Your task to perform on an android device: Set an alarm for 6am Image 0: 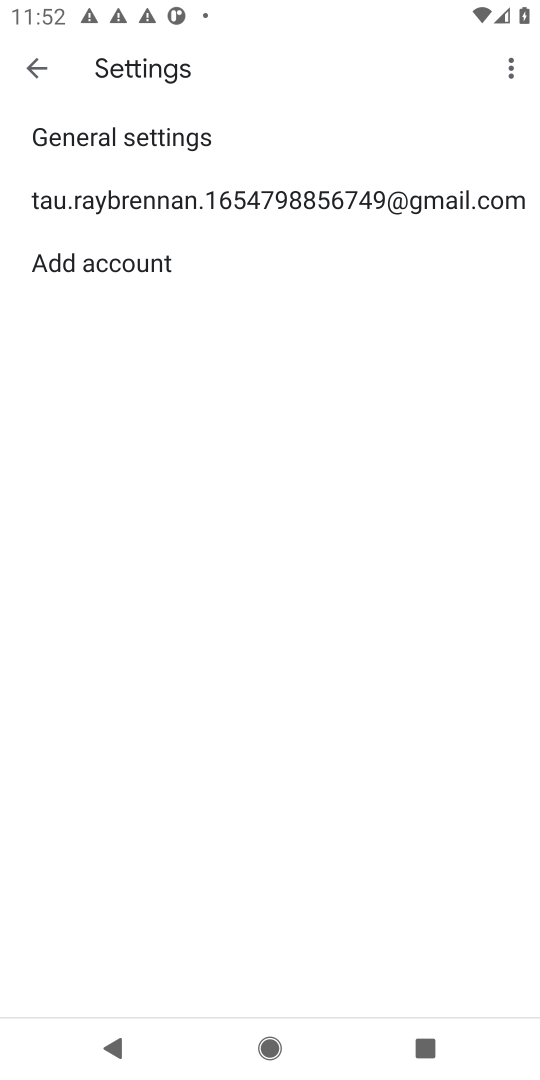
Step 0: press home button
Your task to perform on an android device: Set an alarm for 6am Image 1: 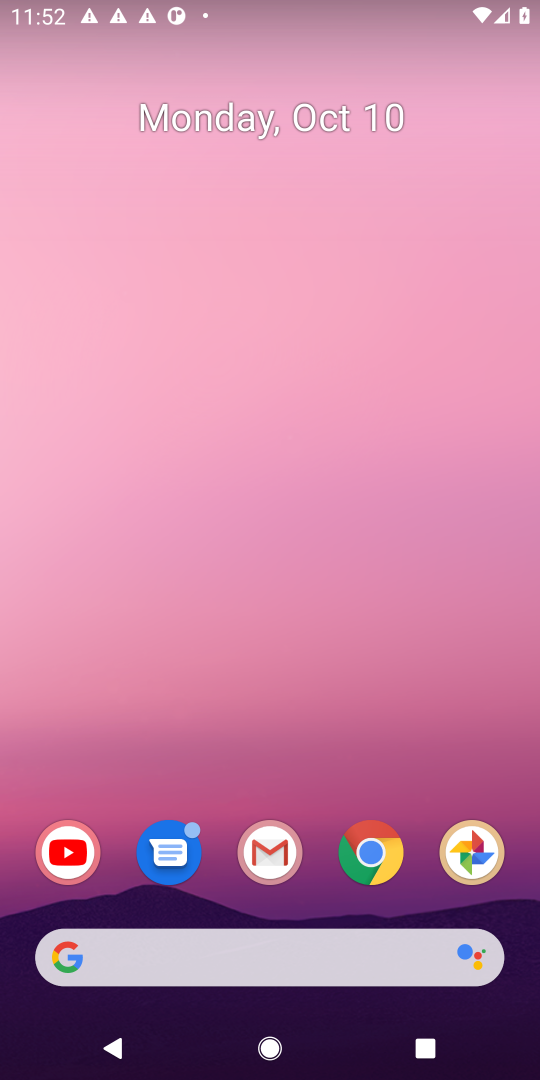
Step 1: drag from (282, 896) to (292, 41)
Your task to perform on an android device: Set an alarm for 6am Image 2: 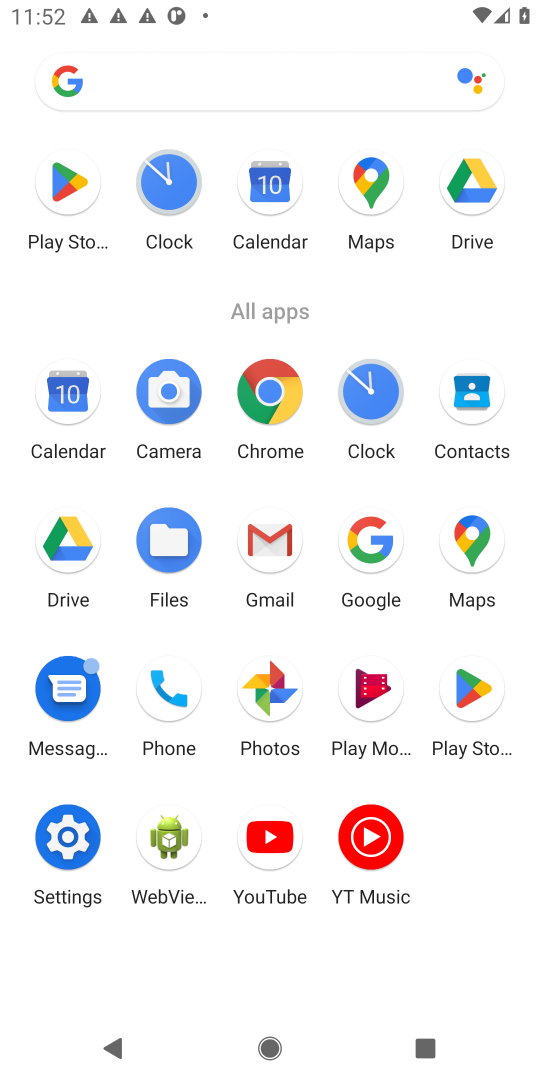
Step 2: click (191, 164)
Your task to perform on an android device: Set an alarm for 6am Image 3: 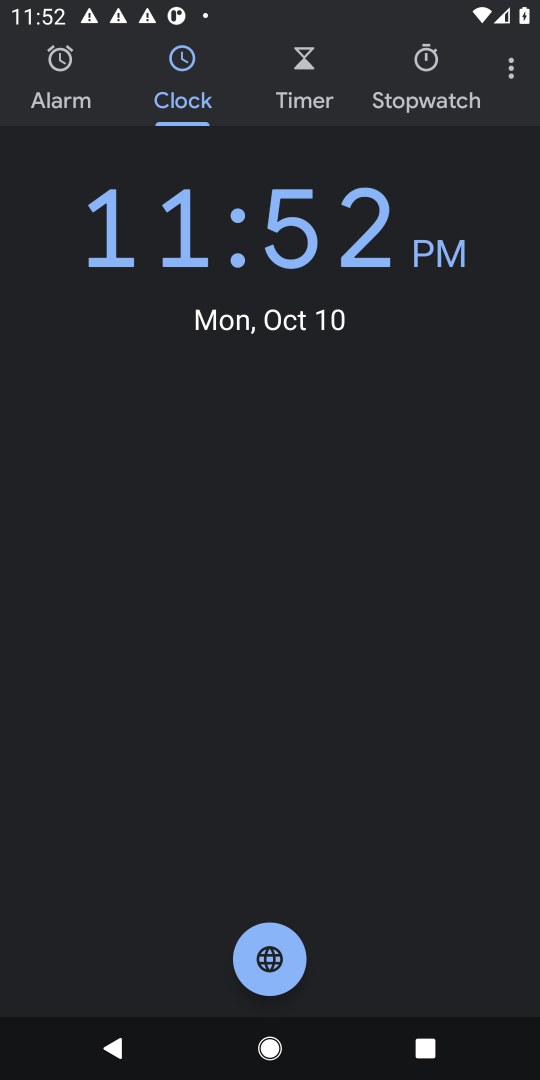
Step 3: click (65, 66)
Your task to perform on an android device: Set an alarm for 6am Image 4: 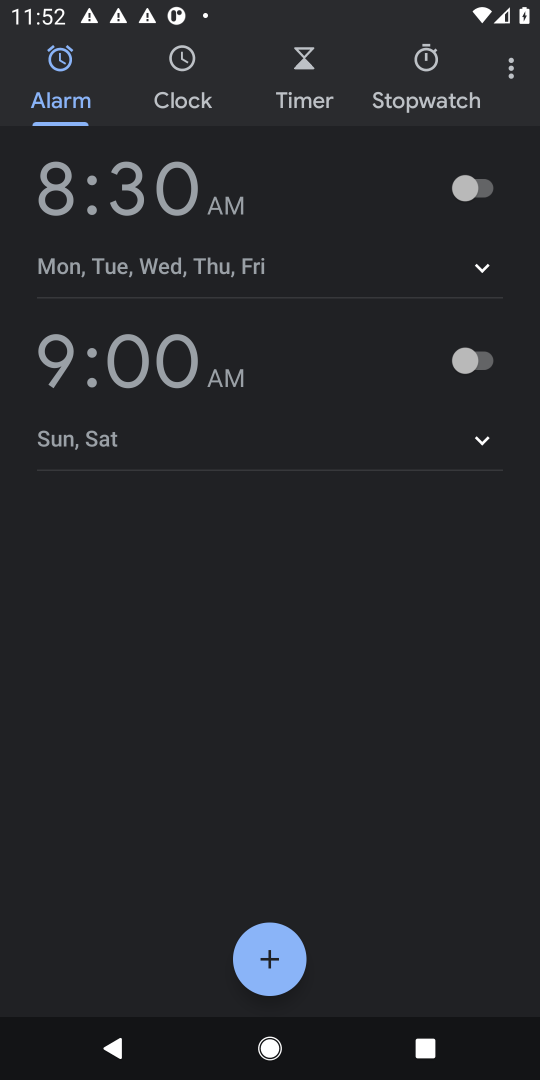
Step 4: click (263, 981)
Your task to perform on an android device: Set an alarm for 6am Image 5: 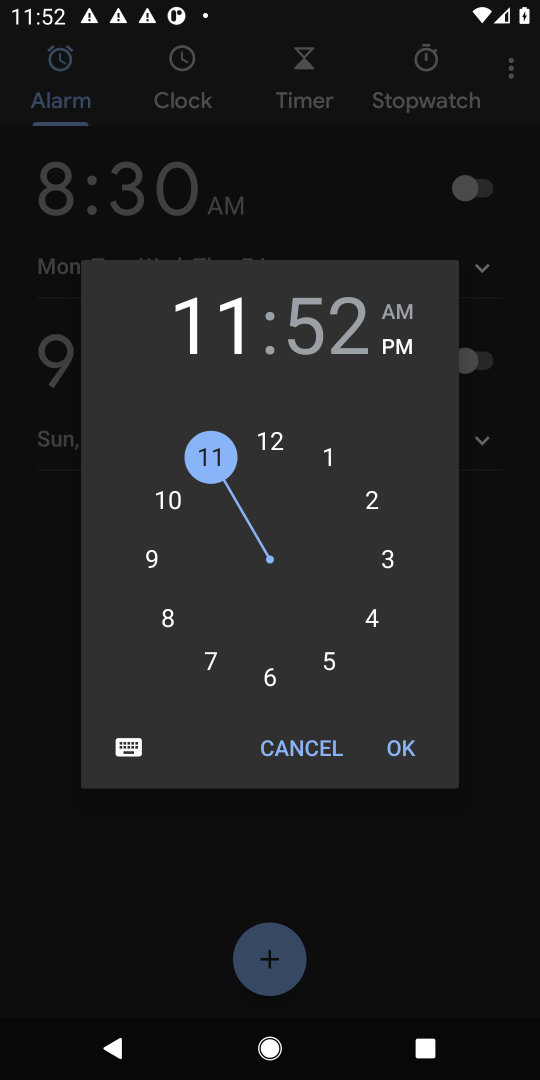
Step 5: click (273, 680)
Your task to perform on an android device: Set an alarm for 6am Image 6: 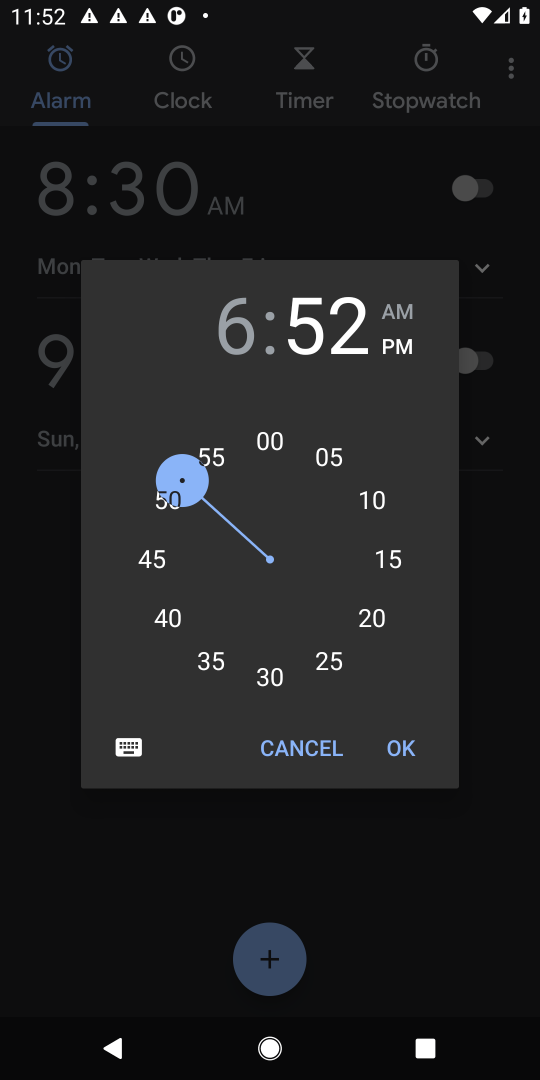
Step 6: click (273, 424)
Your task to perform on an android device: Set an alarm for 6am Image 7: 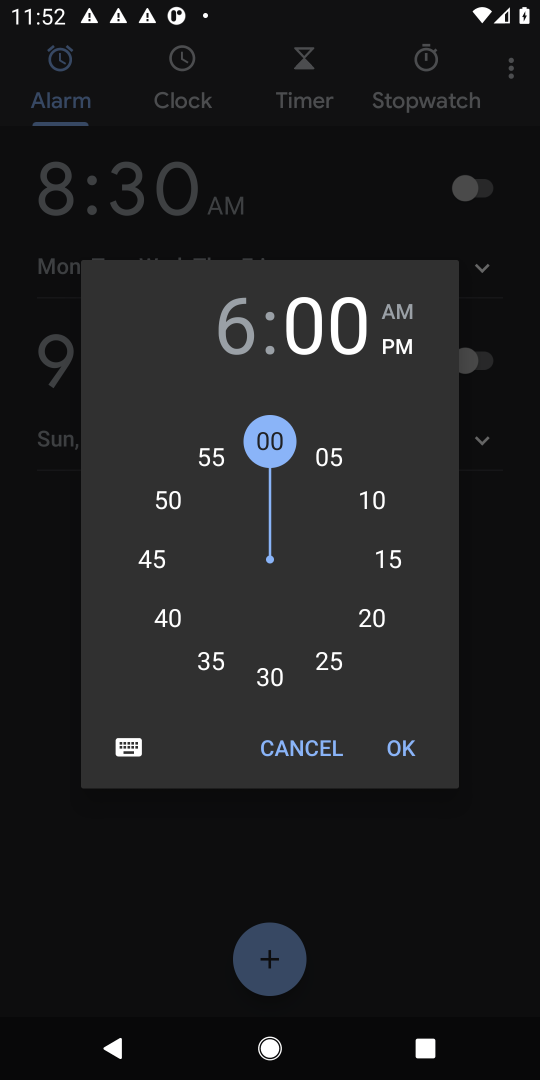
Step 7: click (389, 320)
Your task to perform on an android device: Set an alarm for 6am Image 8: 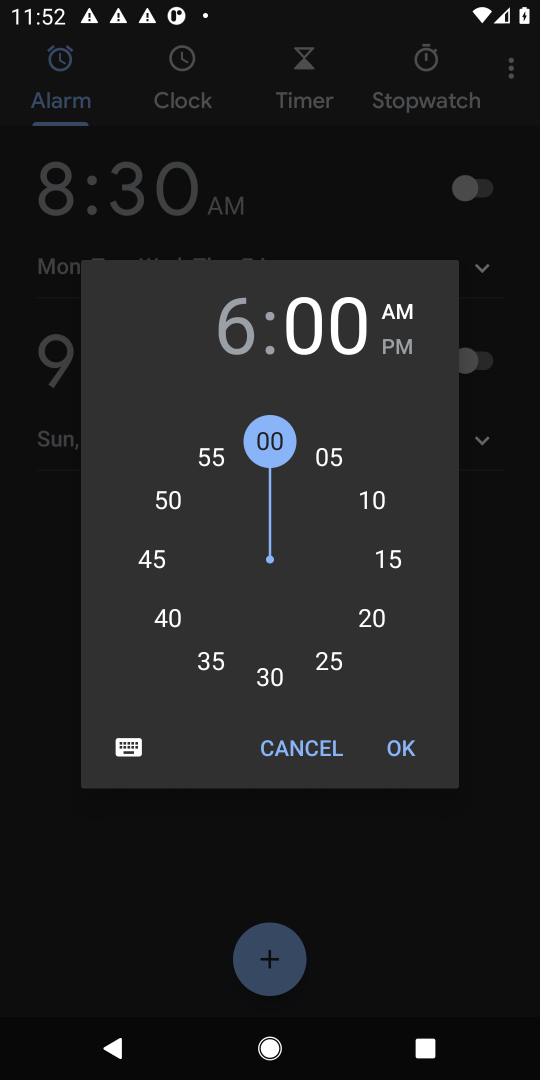
Step 8: click (399, 763)
Your task to perform on an android device: Set an alarm for 6am Image 9: 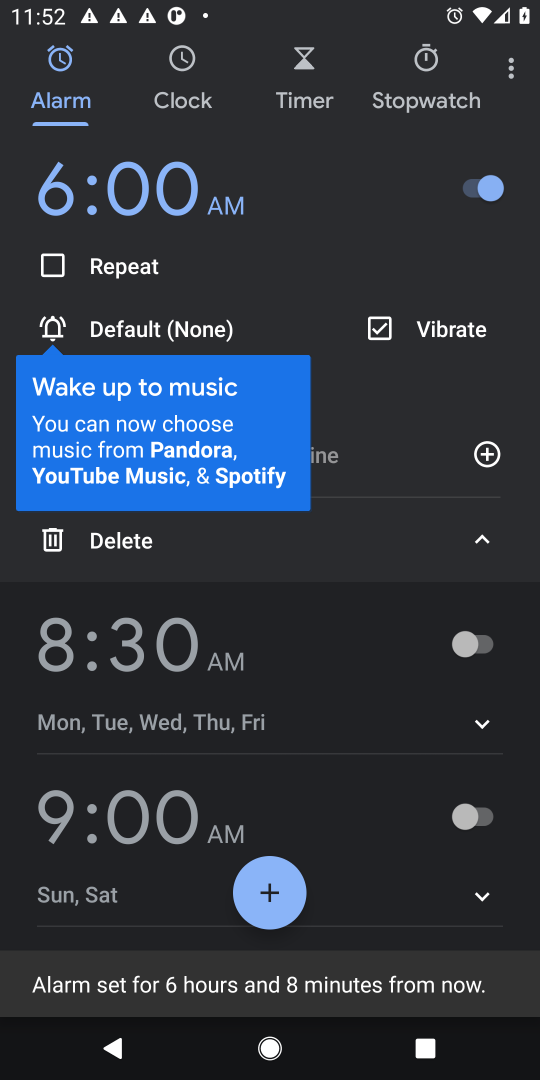
Step 9: task complete